Your task to perform on an android device: set default search engine in the chrome app Image 0: 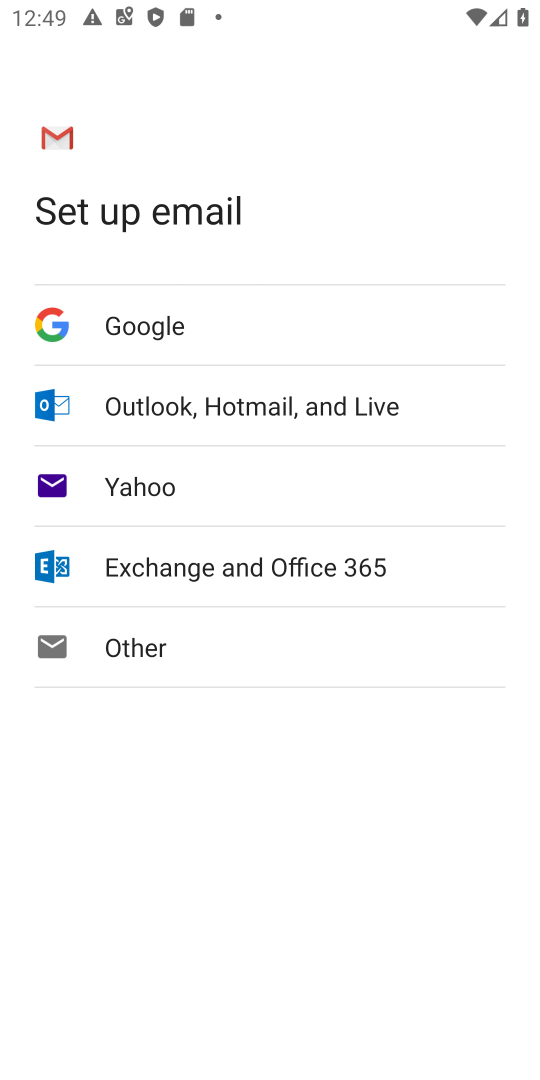
Step 0: press home button
Your task to perform on an android device: set default search engine in the chrome app Image 1: 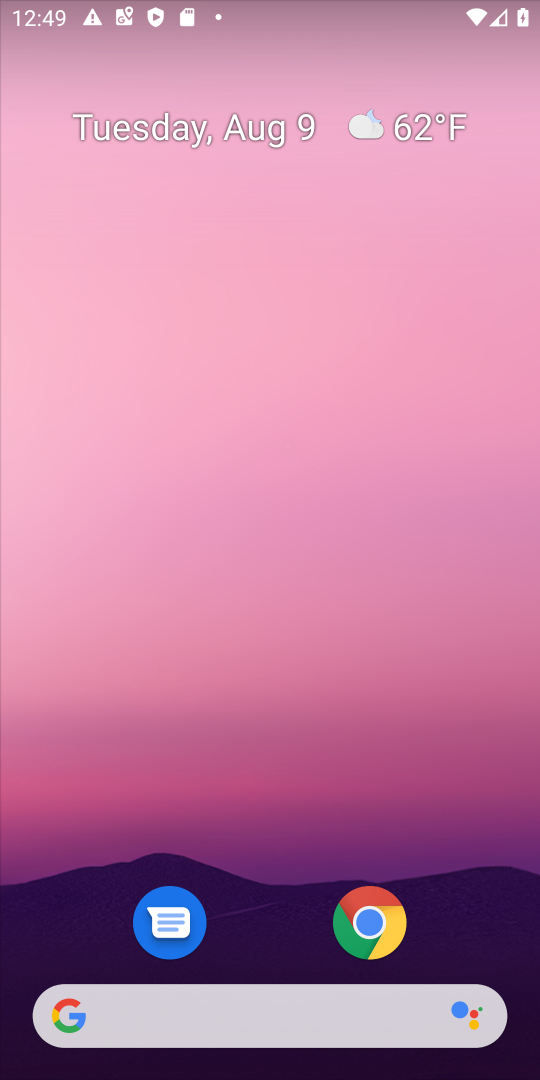
Step 1: click (361, 922)
Your task to perform on an android device: set default search engine in the chrome app Image 2: 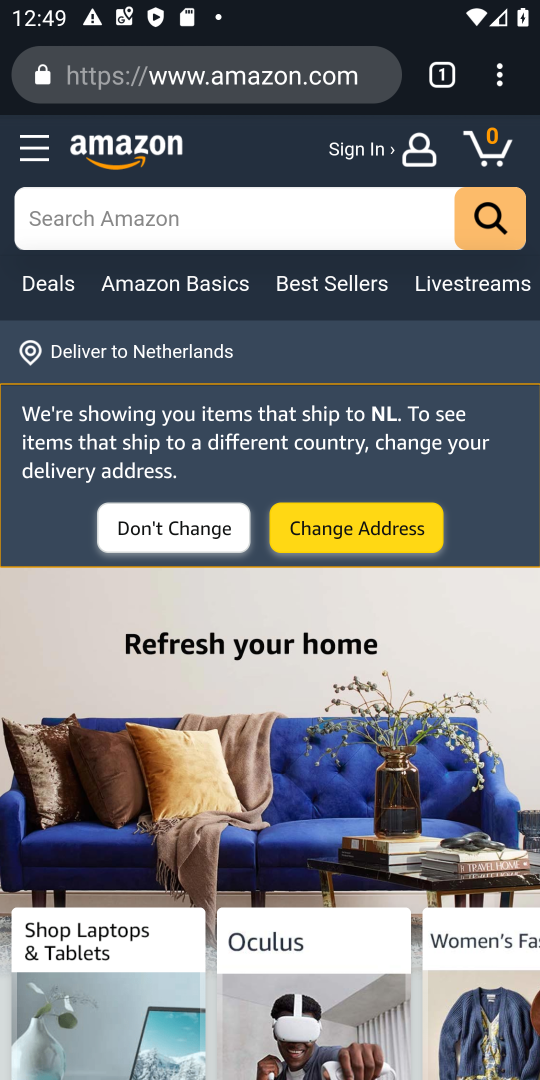
Step 2: click (509, 81)
Your task to perform on an android device: set default search engine in the chrome app Image 3: 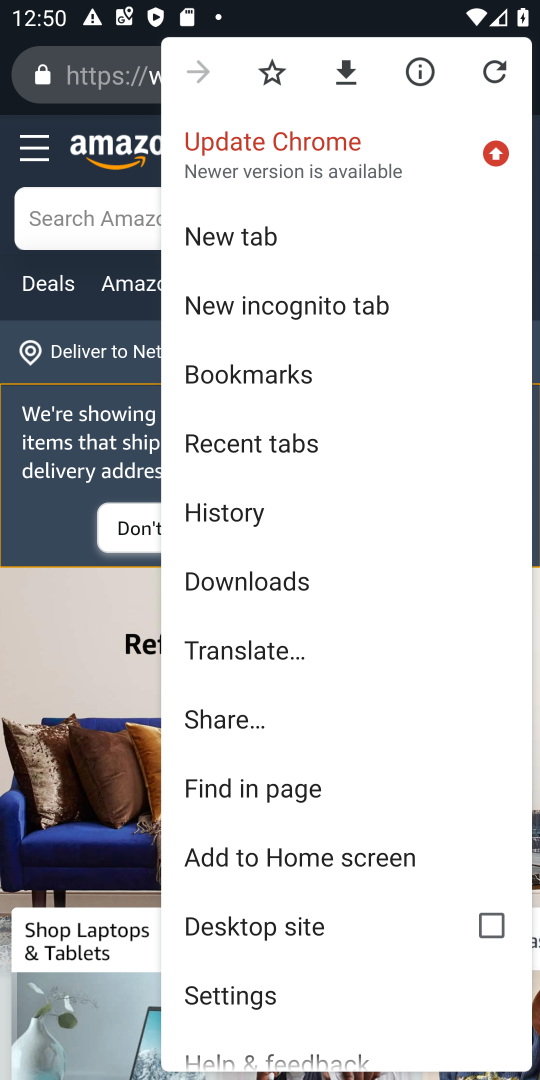
Step 3: click (213, 1006)
Your task to perform on an android device: set default search engine in the chrome app Image 4: 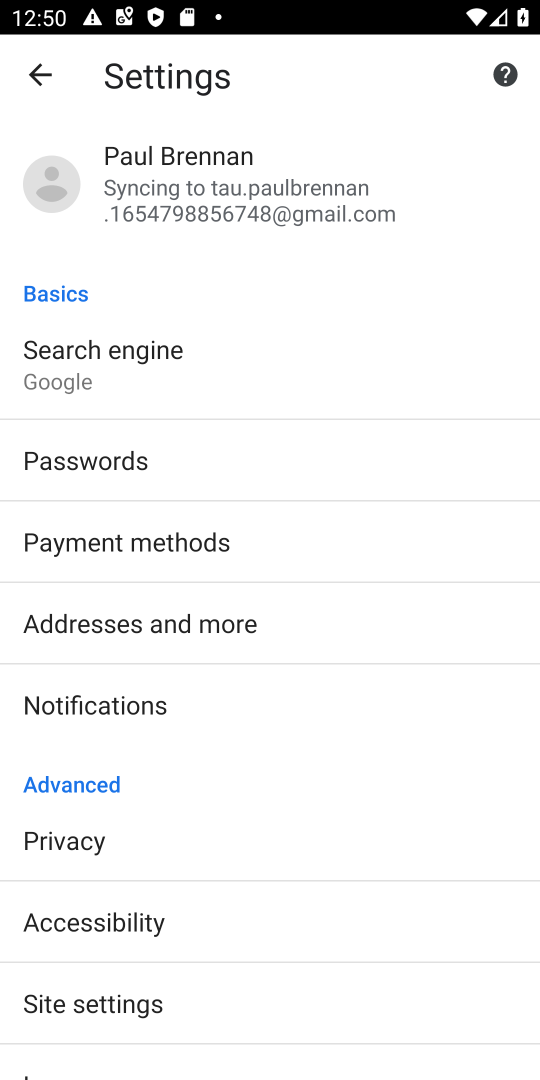
Step 4: click (144, 344)
Your task to perform on an android device: set default search engine in the chrome app Image 5: 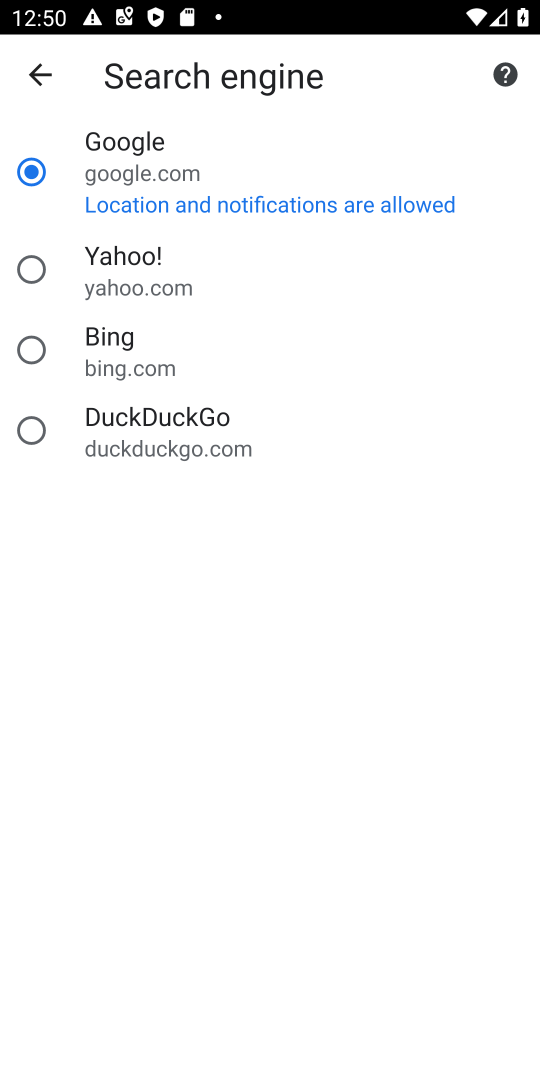
Step 5: task complete